Your task to perform on an android device: Open Chrome and go to settings Image 0: 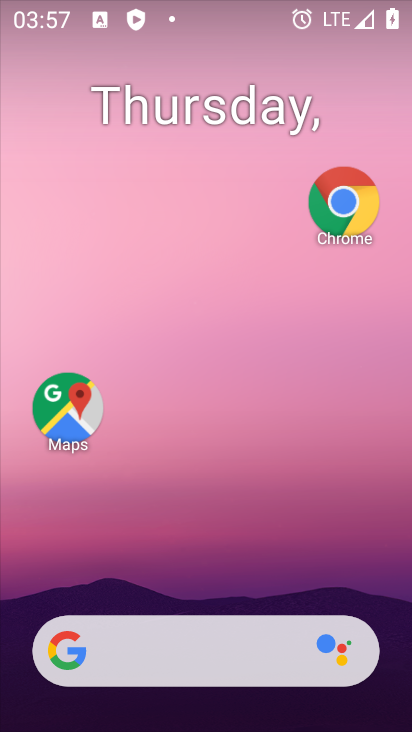
Step 0: drag from (245, 611) to (260, 94)
Your task to perform on an android device: Open Chrome and go to settings Image 1: 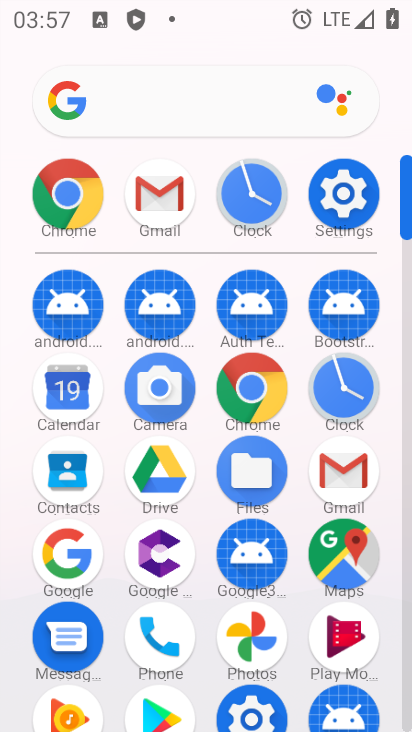
Step 1: click (253, 385)
Your task to perform on an android device: Open Chrome and go to settings Image 2: 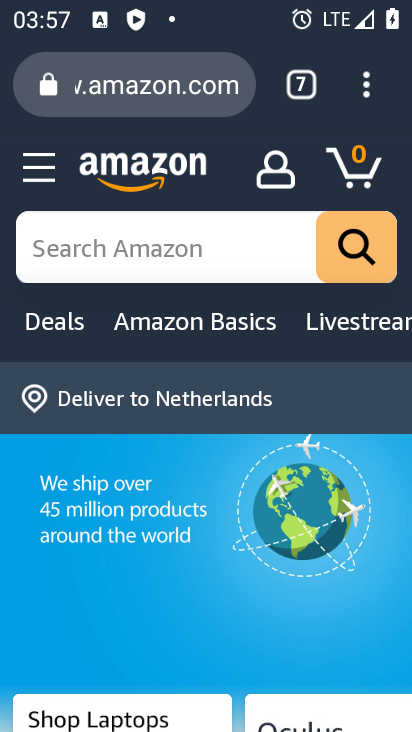
Step 2: click (360, 90)
Your task to perform on an android device: Open Chrome and go to settings Image 3: 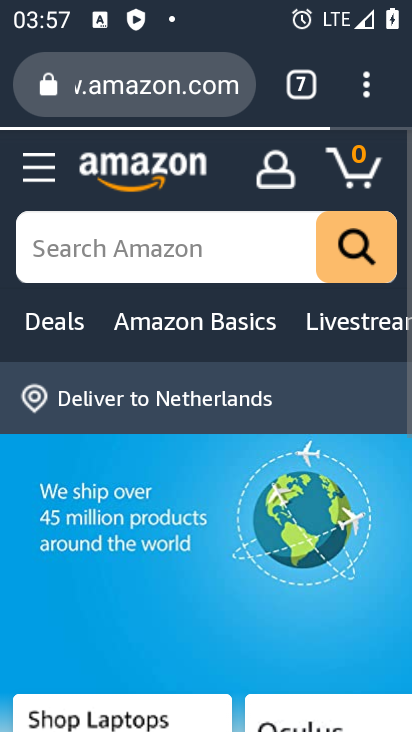
Step 3: task complete